Your task to perform on an android device: Open CNN.com Image 0: 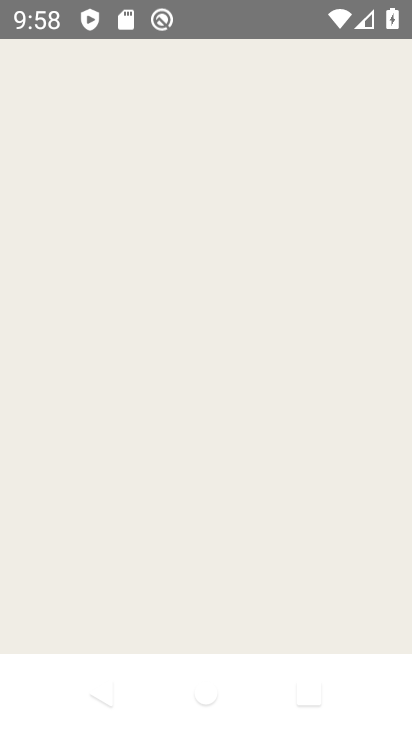
Step 0: press home button
Your task to perform on an android device: Open CNN.com Image 1: 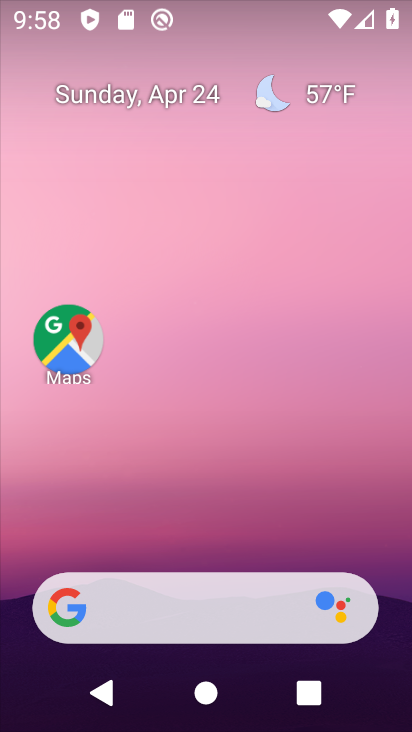
Step 1: drag from (214, 726) to (221, 92)
Your task to perform on an android device: Open CNN.com Image 2: 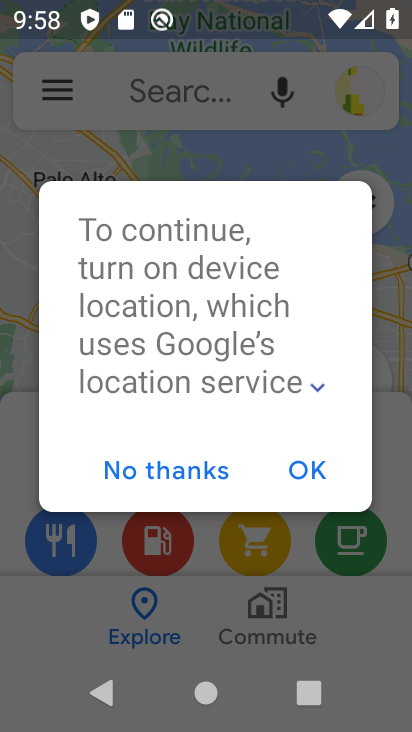
Step 2: click (309, 469)
Your task to perform on an android device: Open CNN.com Image 3: 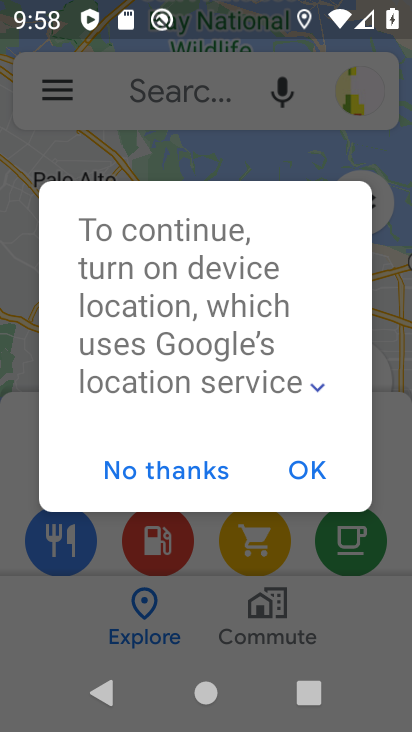
Step 3: click (308, 463)
Your task to perform on an android device: Open CNN.com Image 4: 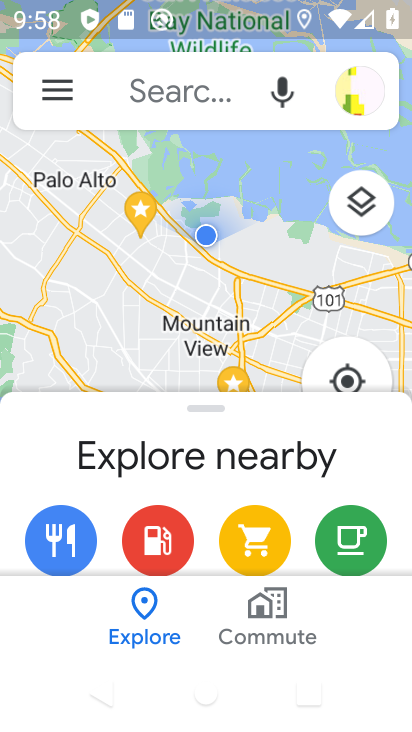
Step 4: click (183, 95)
Your task to perform on an android device: Open CNN.com Image 5: 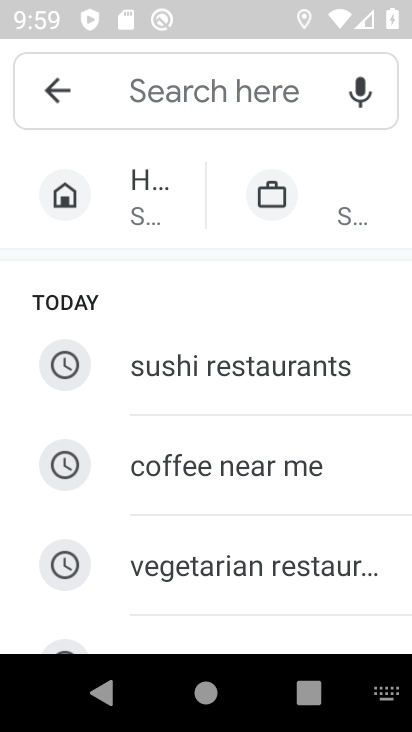
Step 5: press home button
Your task to perform on an android device: Open CNN.com Image 6: 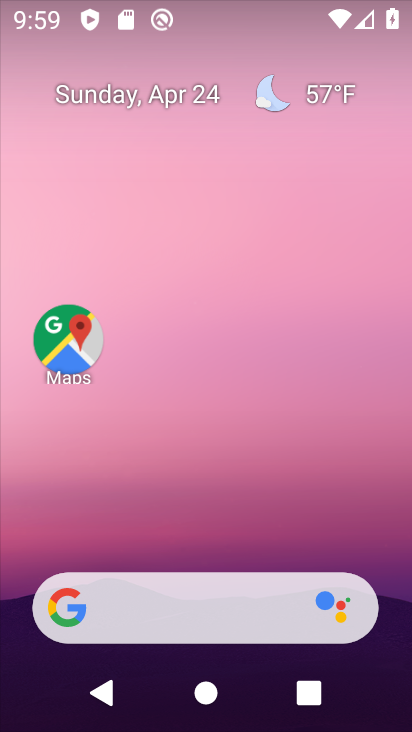
Step 6: drag from (216, 719) to (216, 227)
Your task to perform on an android device: Open CNN.com Image 7: 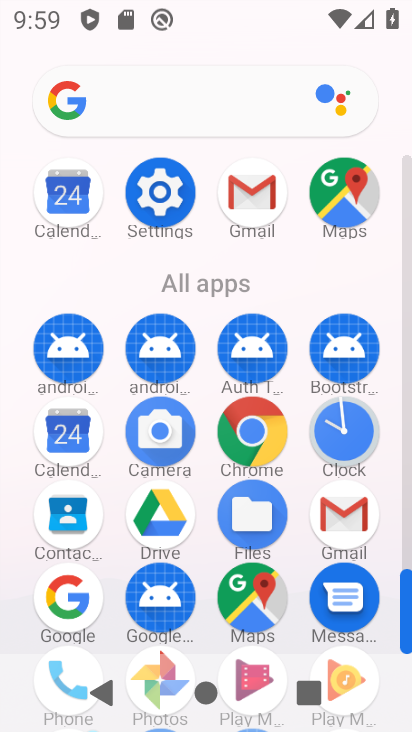
Step 7: click (254, 439)
Your task to perform on an android device: Open CNN.com Image 8: 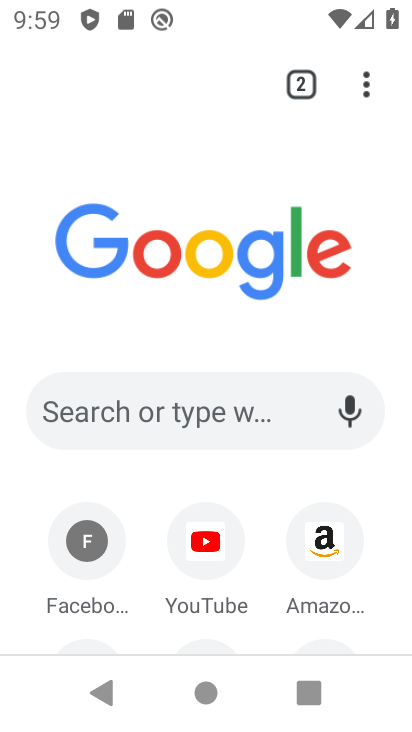
Step 8: click (236, 425)
Your task to perform on an android device: Open CNN.com Image 9: 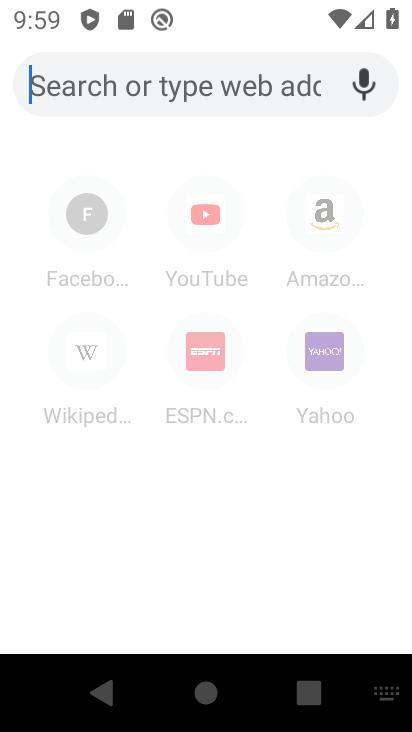
Step 9: type "CNN.com"
Your task to perform on an android device: Open CNN.com Image 10: 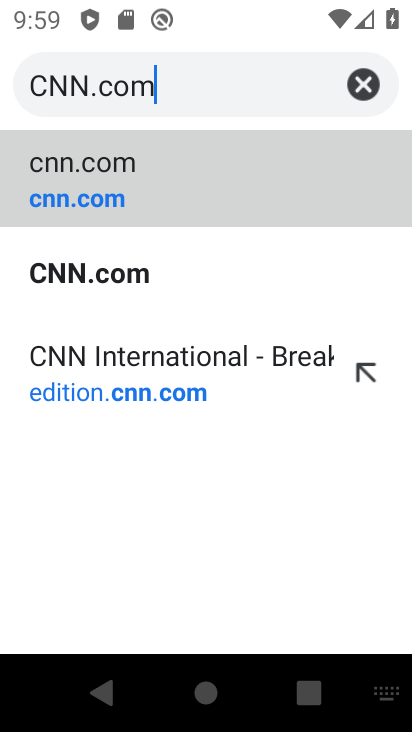
Step 10: click (101, 171)
Your task to perform on an android device: Open CNN.com Image 11: 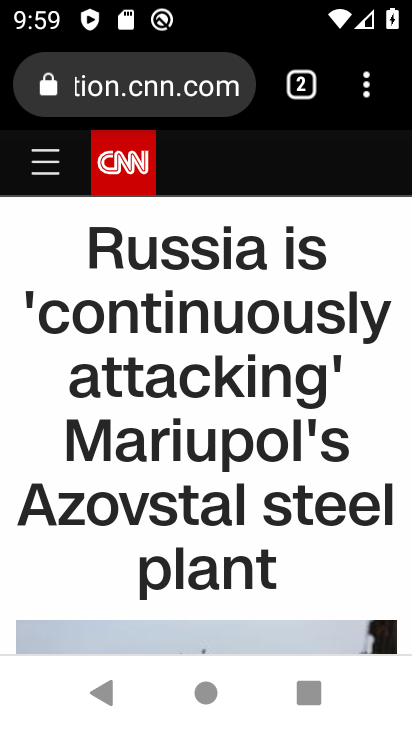
Step 11: task complete